Your task to perform on an android device: set default search engine in the chrome app Image 0: 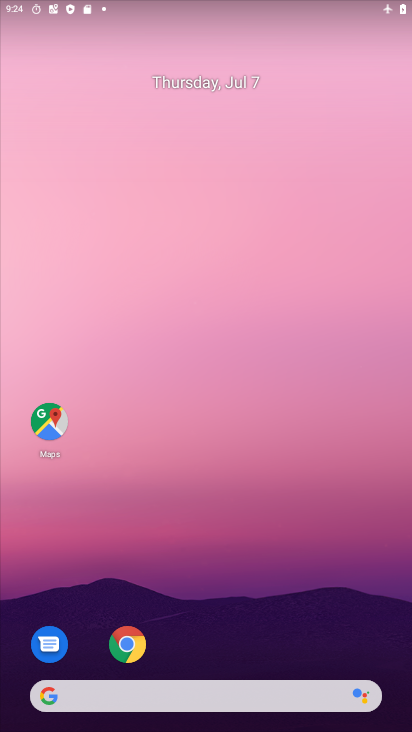
Step 0: click (129, 647)
Your task to perform on an android device: set default search engine in the chrome app Image 1: 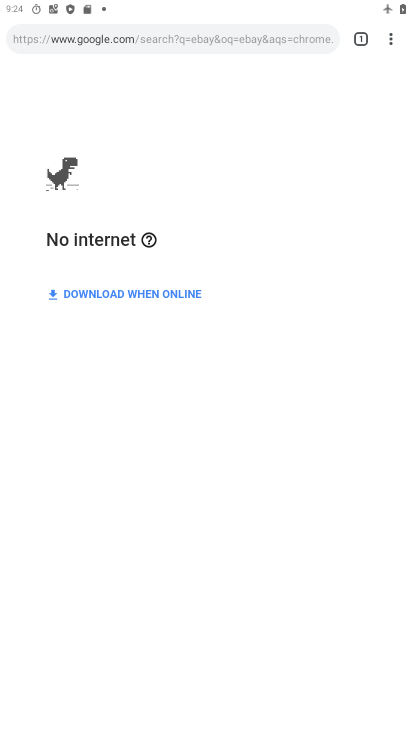
Step 1: drag from (395, 34) to (244, 438)
Your task to perform on an android device: set default search engine in the chrome app Image 2: 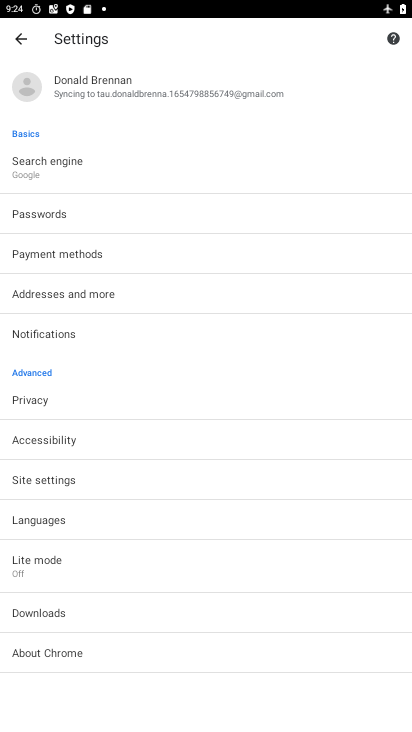
Step 2: click (86, 171)
Your task to perform on an android device: set default search engine in the chrome app Image 3: 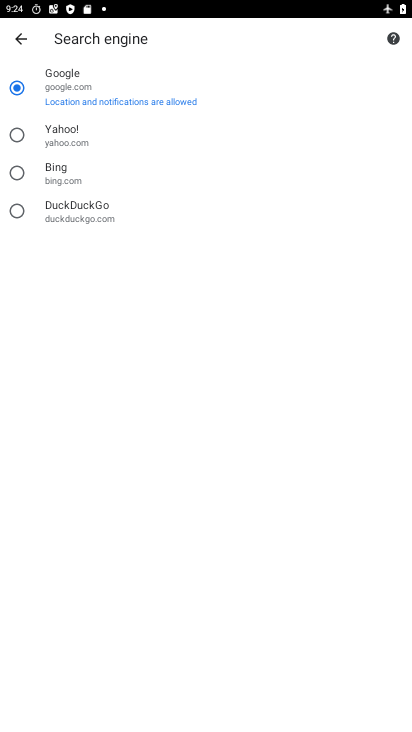
Step 3: task complete